Your task to perform on an android device: turn on location history Image 0: 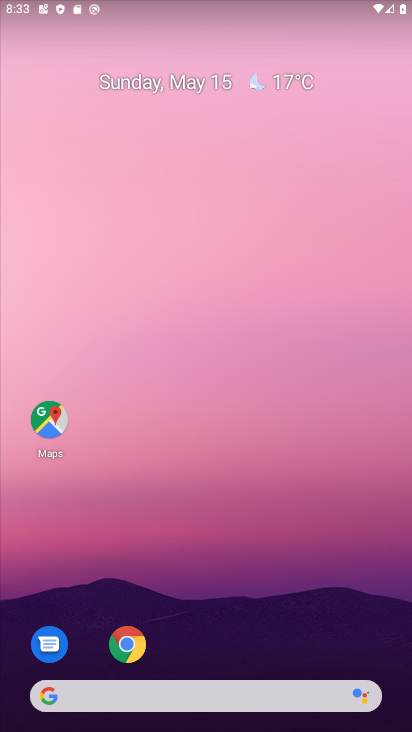
Step 0: drag from (238, 711) to (201, 94)
Your task to perform on an android device: turn on location history Image 1: 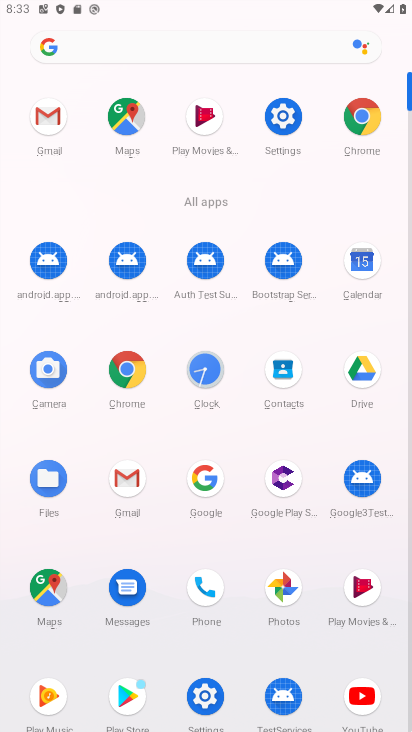
Step 1: click (269, 125)
Your task to perform on an android device: turn on location history Image 2: 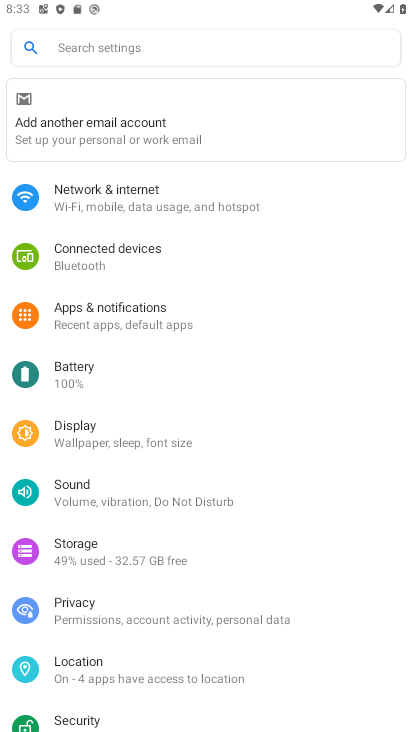
Step 2: click (98, 656)
Your task to perform on an android device: turn on location history Image 3: 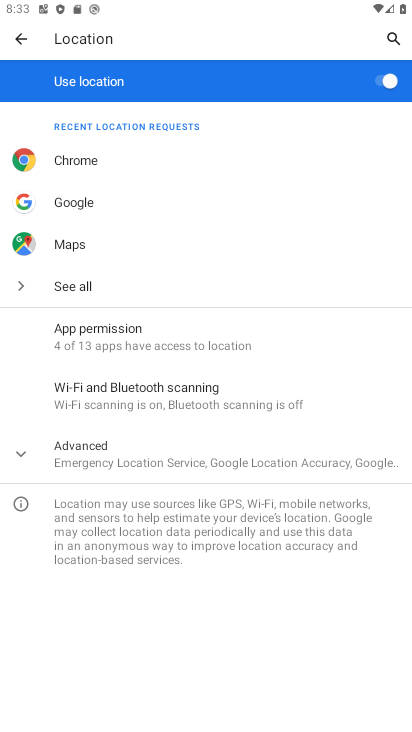
Step 3: click (56, 457)
Your task to perform on an android device: turn on location history Image 4: 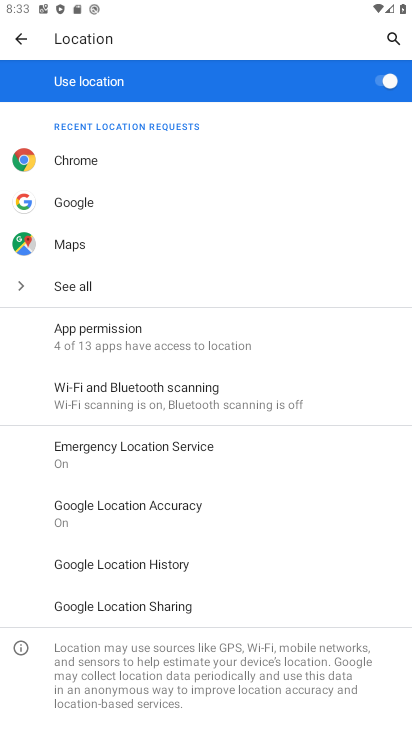
Step 4: click (164, 559)
Your task to perform on an android device: turn on location history Image 5: 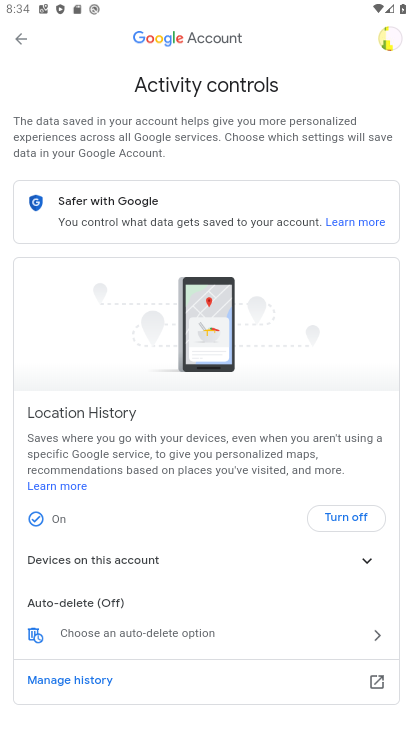
Step 5: task complete